Your task to perform on an android device: open app "Messages" (install if not already installed), go to login, and select forgot password Image 0: 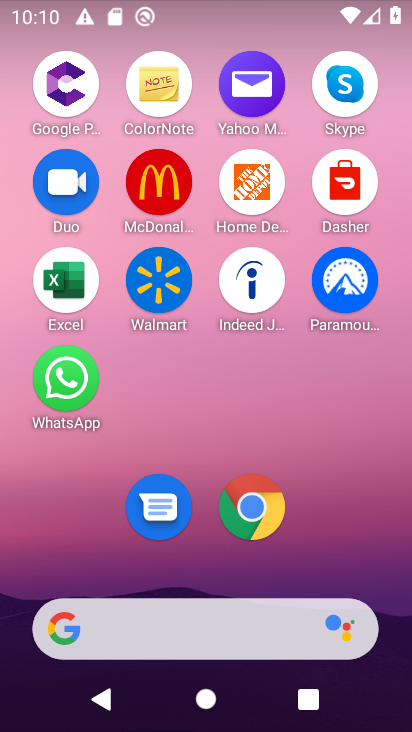
Step 0: drag from (400, 649) to (354, 183)
Your task to perform on an android device: open app "Messages" (install if not already installed), go to login, and select forgot password Image 1: 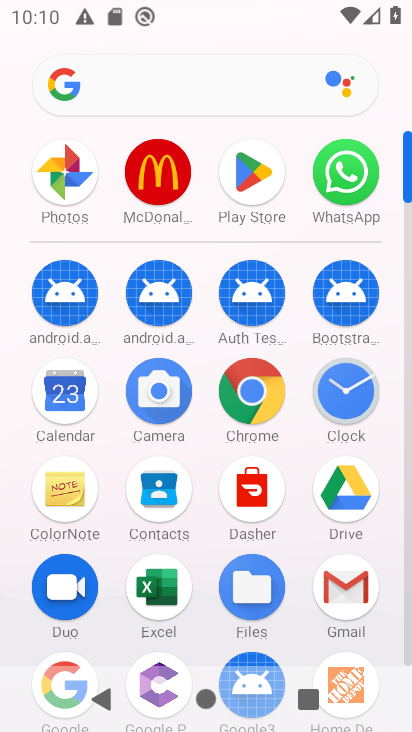
Step 1: click (409, 645)
Your task to perform on an android device: open app "Messages" (install if not already installed), go to login, and select forgot password Image 2: 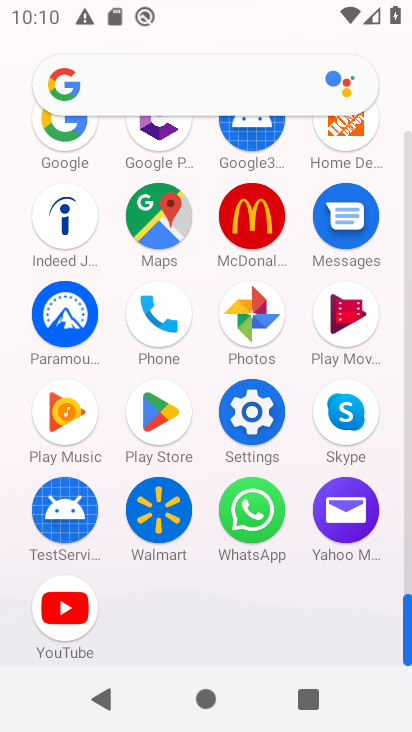
Step 2: click (160, 408)
Your task to perform on an android device: open app "Messages" (install if not already installed), go to login, and select forgot password Image 3: 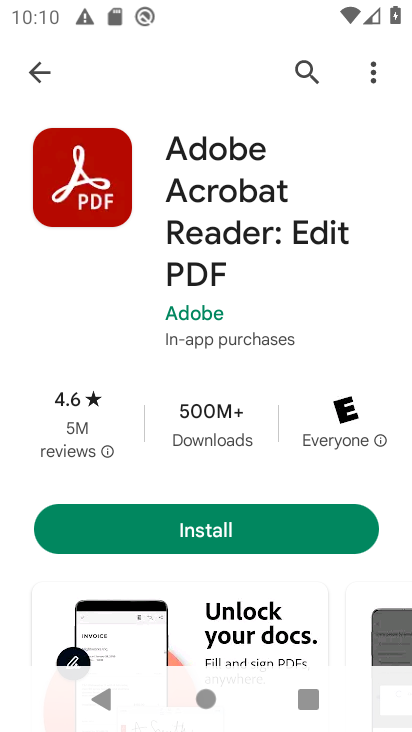
Step 3: click (301, 69)
Your task to perform on an android device: open app "Messages" (install if not already installed), go to login, and select forgot password Image 4: 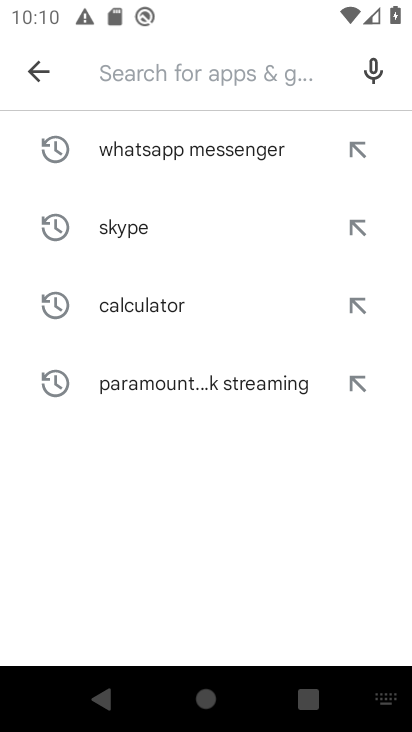
Step 4: type "Messages"
Your task to perform on an android device: open app "Messages" (install if not already installed), go to login, and select forgot password Image 5: 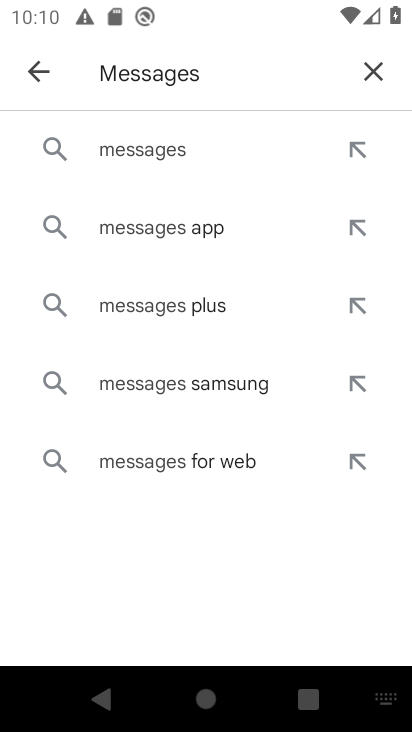
Step 5: click (174, 154)
Your task to perform on an android device: open app "Messages" (install if not already installed), go to login, and select forgot password Image 6: 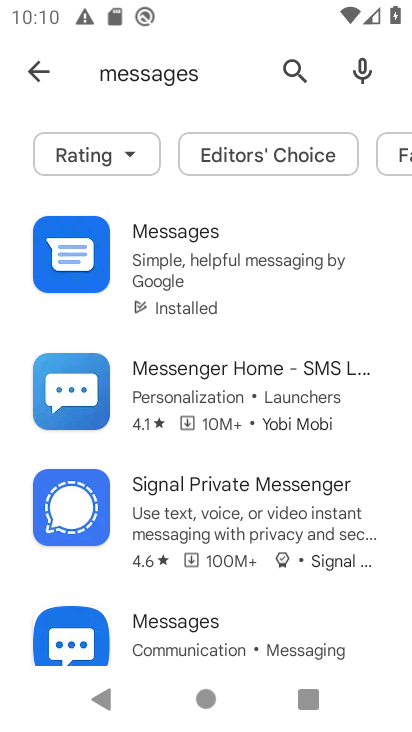
Step 6: click (172, 236)
Your task to perform on an android device: open app "Messages" (install if not already installed), go to login, and select forgot password Image 7: 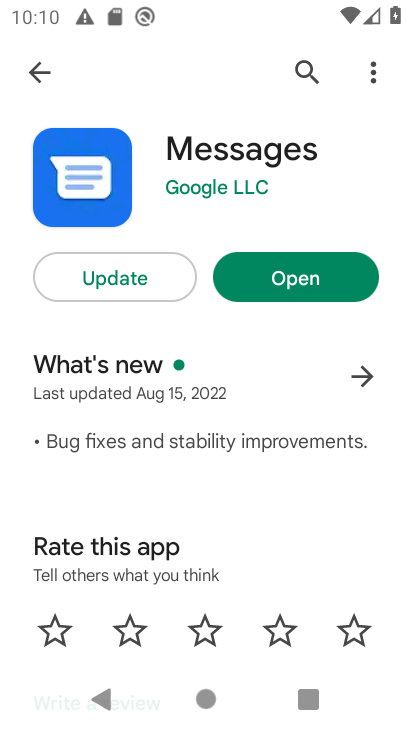
Step 7: click (290, 273)
Your task to perform on an android device: open app "Messages" (install if not already installed), go to login, and select forgot password Image 8: 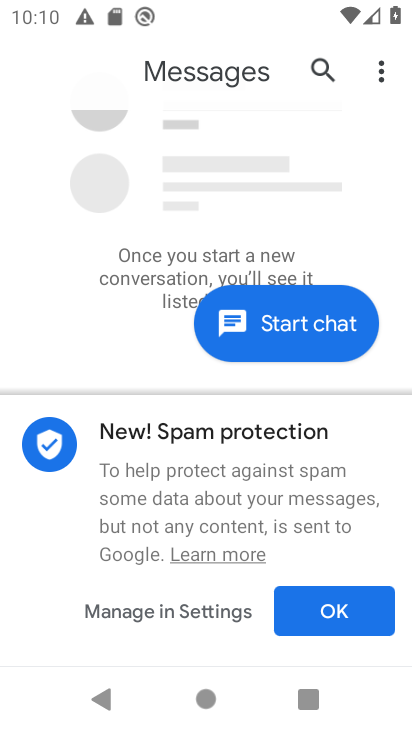
Step 8: click (372, 75)
Your task to perform on an android device: open app "Messages" (install if not already installed), go to login, and select forgot password Image 9: 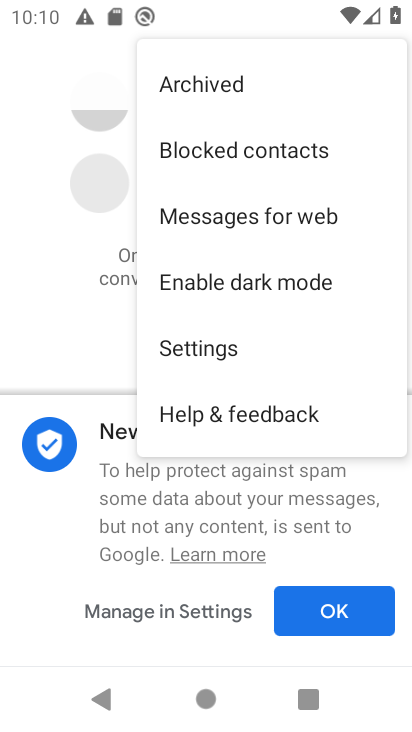
Step 9: click (205, 337)
Your task to perform on an android device: open app "Messages" (install if not already installed), go to login, and select forgot password Image 10: 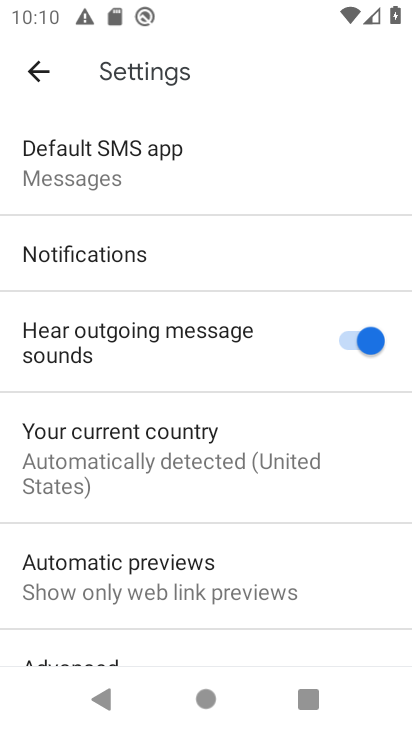
Step 10: task complete